Your task to perform on an android device: Find the nearest electronics store that's open tomorrow Image 0: 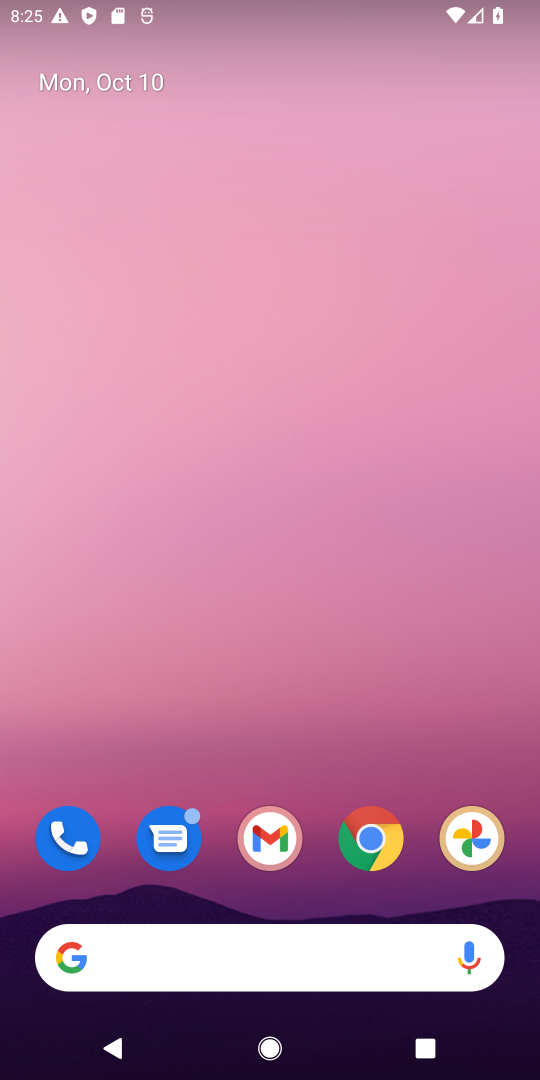
Step 0: drag from (315, 909) to (249, 108)
Your task to perform on an android device: Find the nearest electronics store that's open tomorrow Image 1: 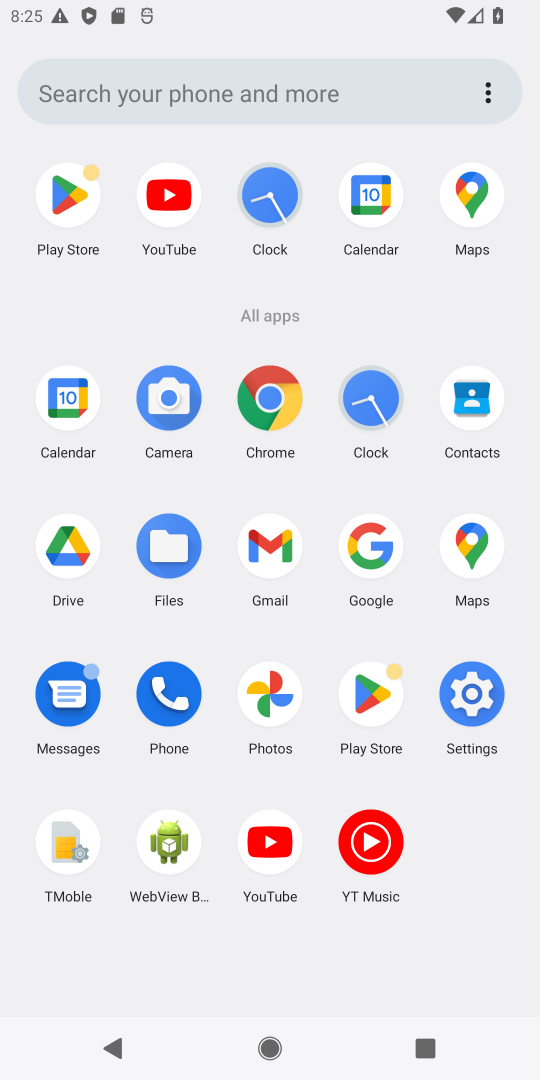
Step 1: click (267, 404)
Your task to perform on an android device: Find the nearest electronics store that's open tomorrow Image 2: 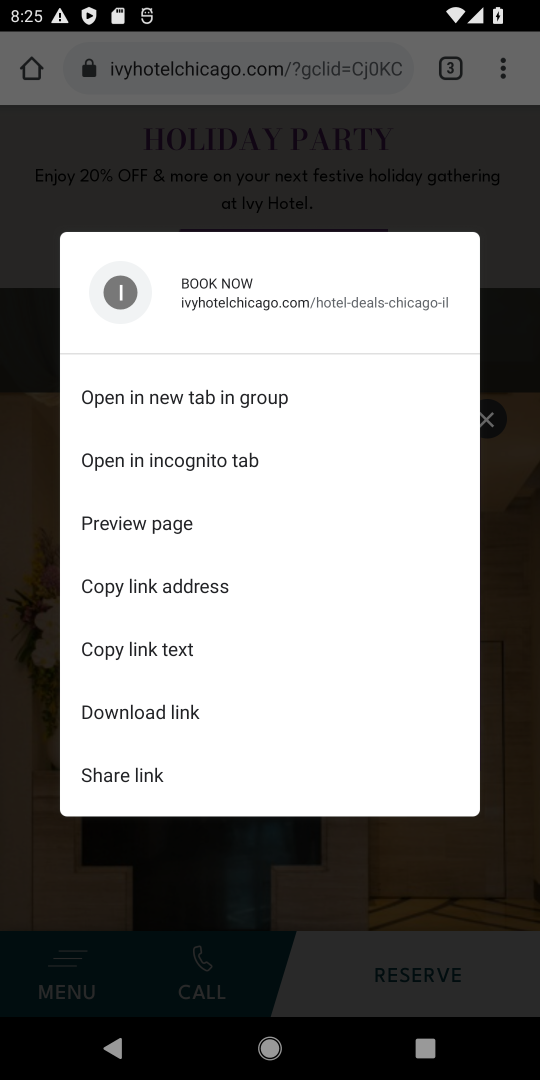
Step 2: click (289, 874)
Your task to perform on an android device: Find the nearest electronics store that's open tomorrow Image 3: 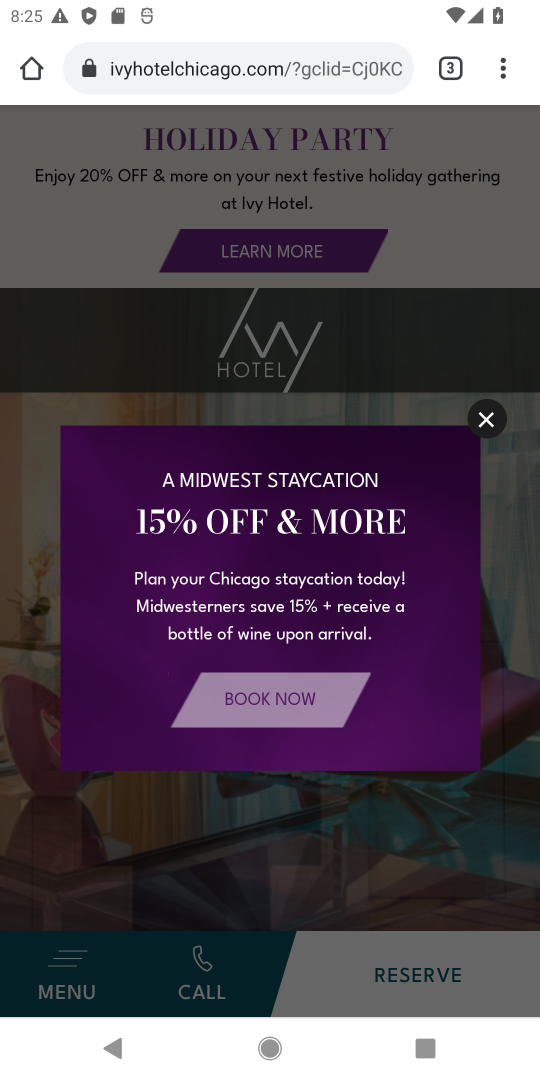
Step 3: drag from (505, 75) to (295, 139)
Your task to perform on an android device: Find the nearest electronics store that's open tomorrow Image 4: 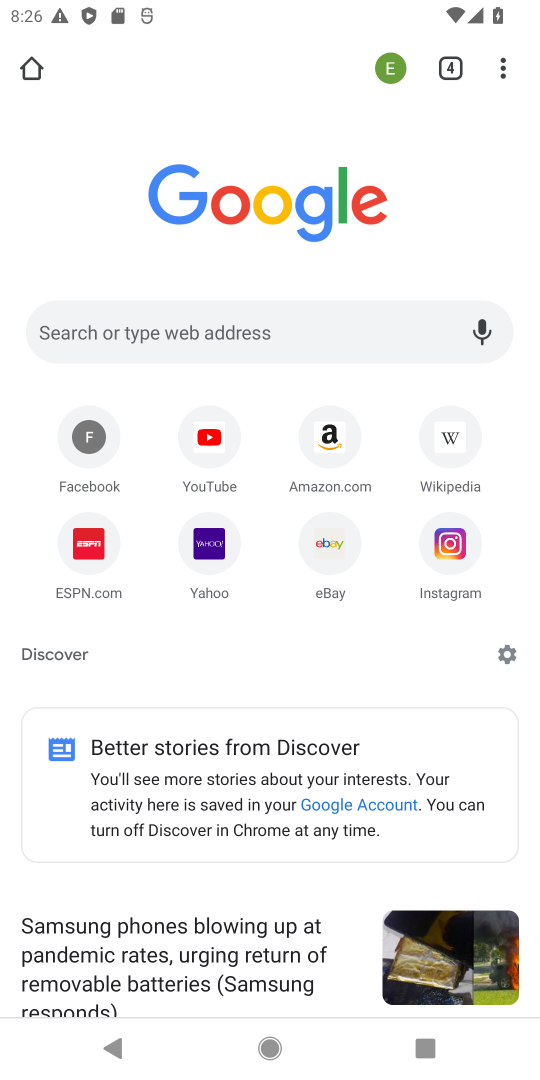
Step 4: click (201, 331)
Your task to perform on an android device: Find the nearest electronics store that's open tomorrow Image 5: 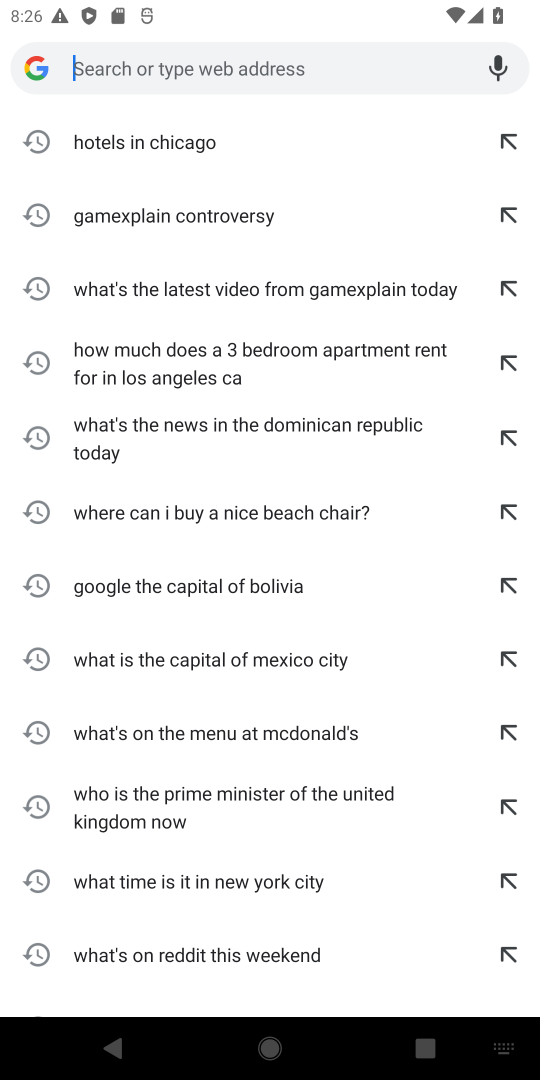
Step 5: type "Find the nearest electronics store that's open tomorrow"
Your task to perform on an android device: Find the nearest electronics store that's open tomorrow Image 6: 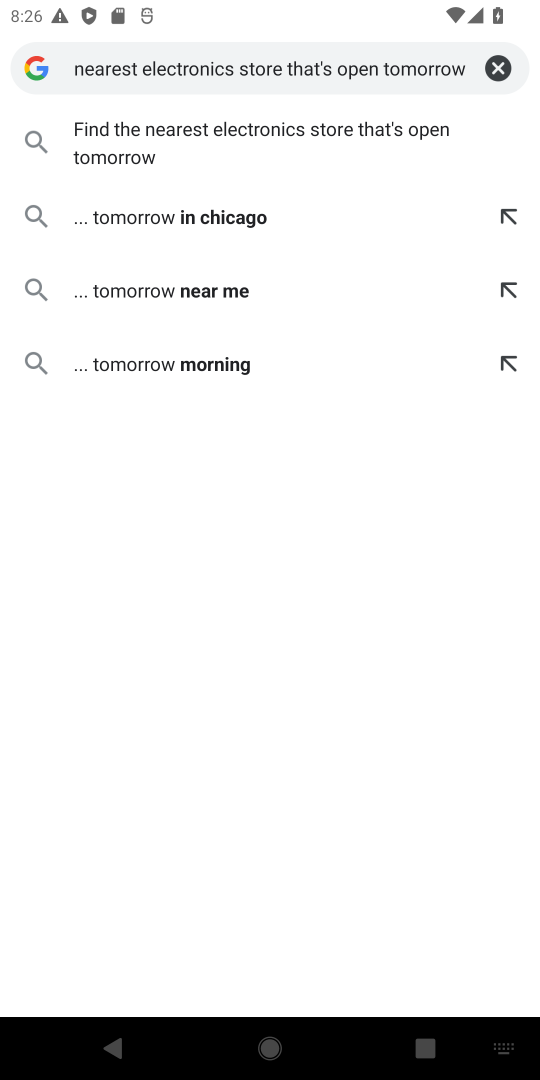
Step 6: click (161, 134)
Your task to perform on an android device: Find the nearest electronics store that's open tomorrow Image 7: 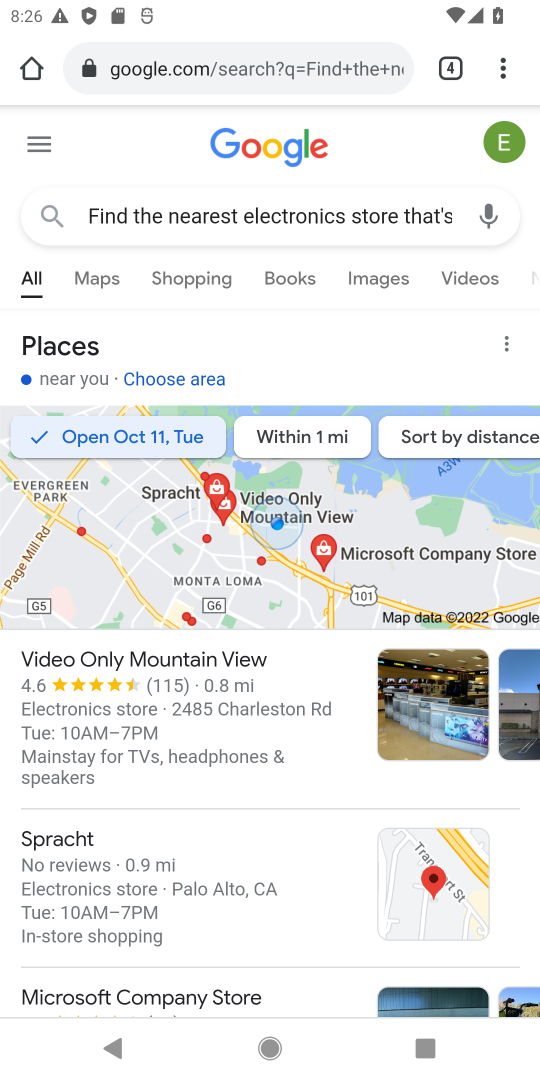
Step 7: task complete